Your task to perform on an android device: Open Google Chrome and open the bookmarks view Image 0: 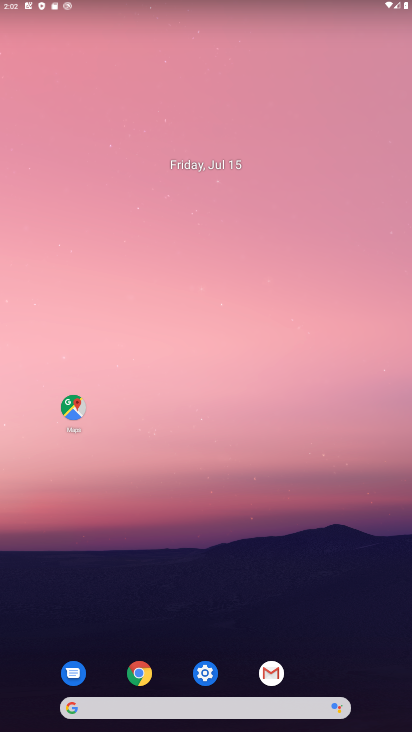
Step 0: press home button
Your task to perform on an android device: Open Google Chrome and open the bookmarks view Image 1: 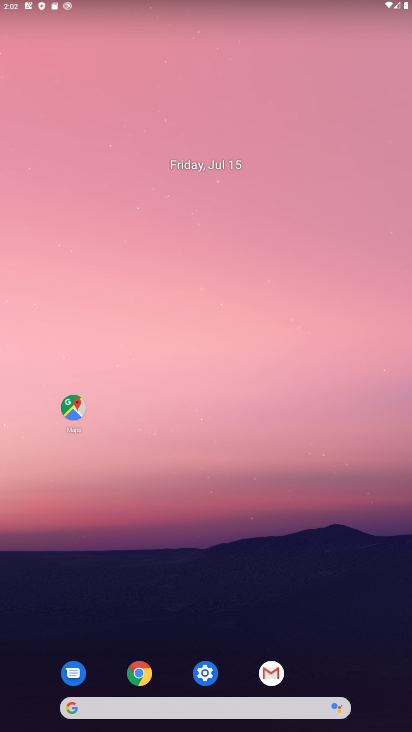
Step 1: click (137, 670)
Your task to perform on an android device: Open Google Chrome and open the bookmarks view Image 2: 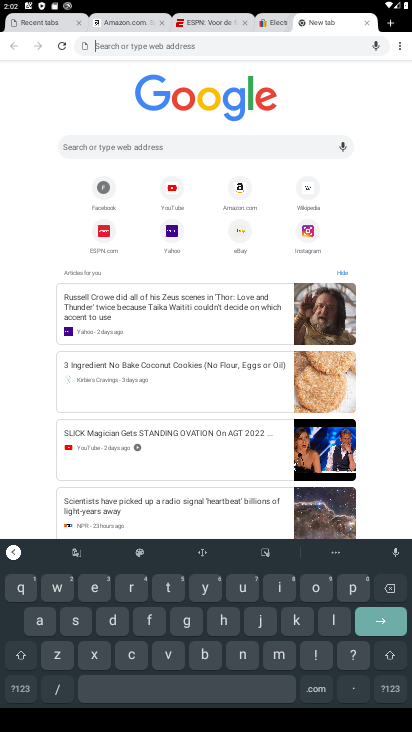
Step 2: click (391, 51)
Your task to perform on an android device: Open Google Chrome and open the bookmarks view Image 3: 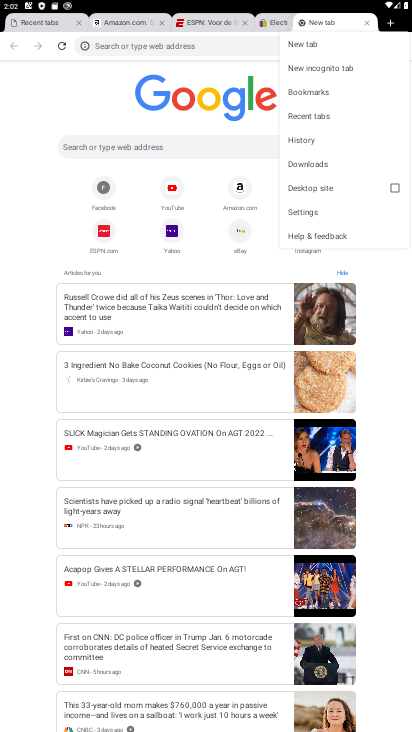
Step 3: click (310, 92)
Your task to perform on an android device: Open Google Chrome and open the bookmarks view Image 4: 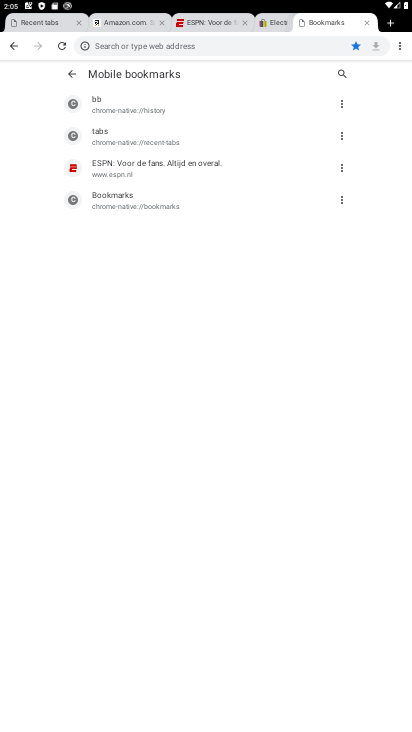
Step 4: task complete